Your task to perform on an android device: Open Google Image 0: 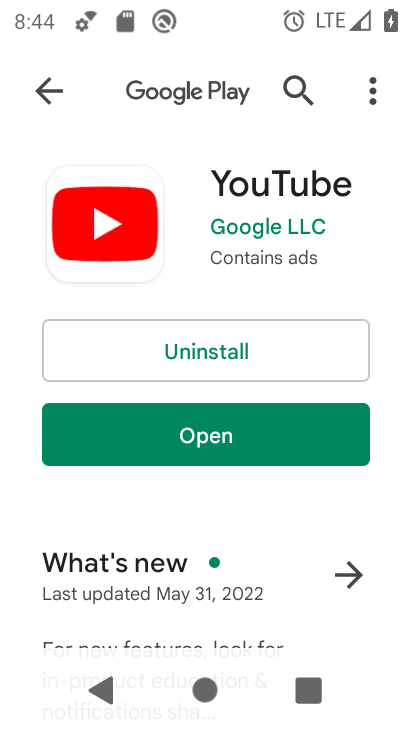
Step 0: press home button
Your task to perform on an android device: Open Google Image 1: 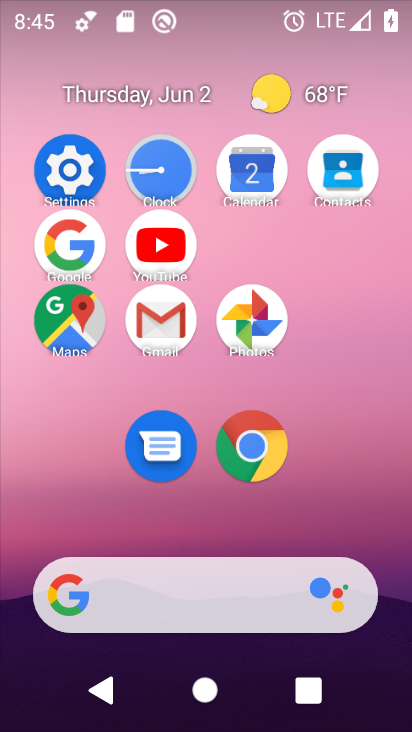
Step 1: click (64, 234)
Your task to perform on an android device: Open Google Image 2: 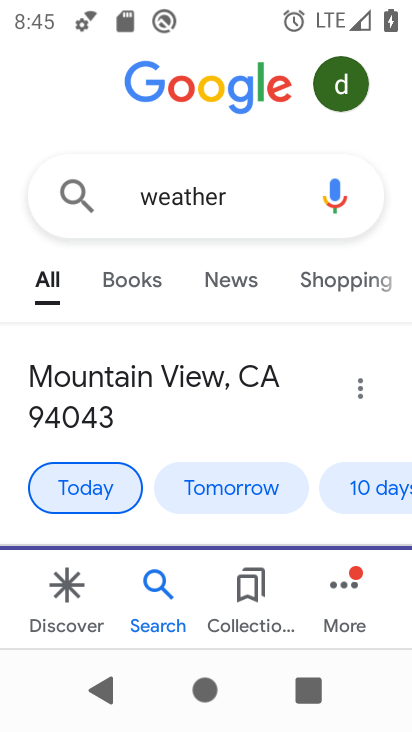
Step 2: task complete